Your task to perform on an android device: Add alienware area 51 to the cart on amazon, then select checkout. Image 0: 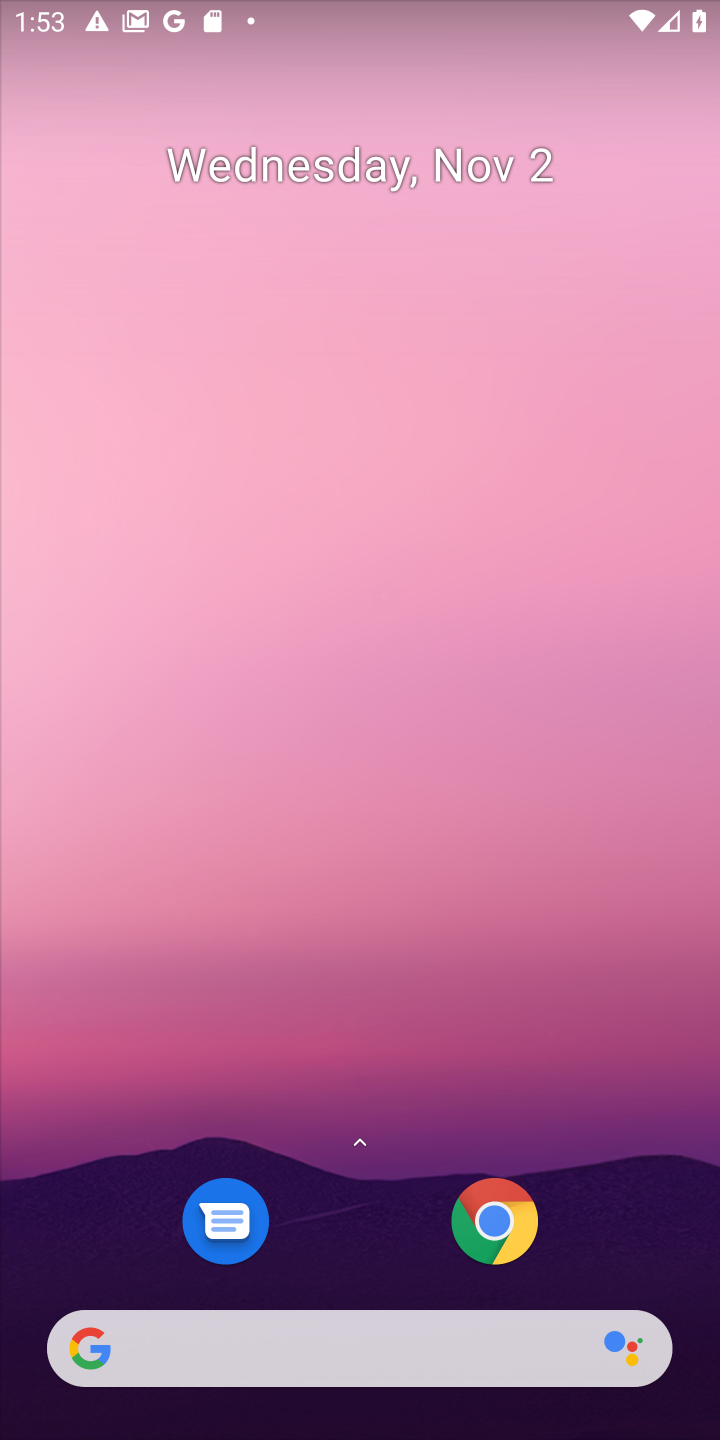
Step 0: click (293, 1321)
Your task to perform on an android device: Add alienware area 51 to the cart on amazon, then select checkout. Image 1: 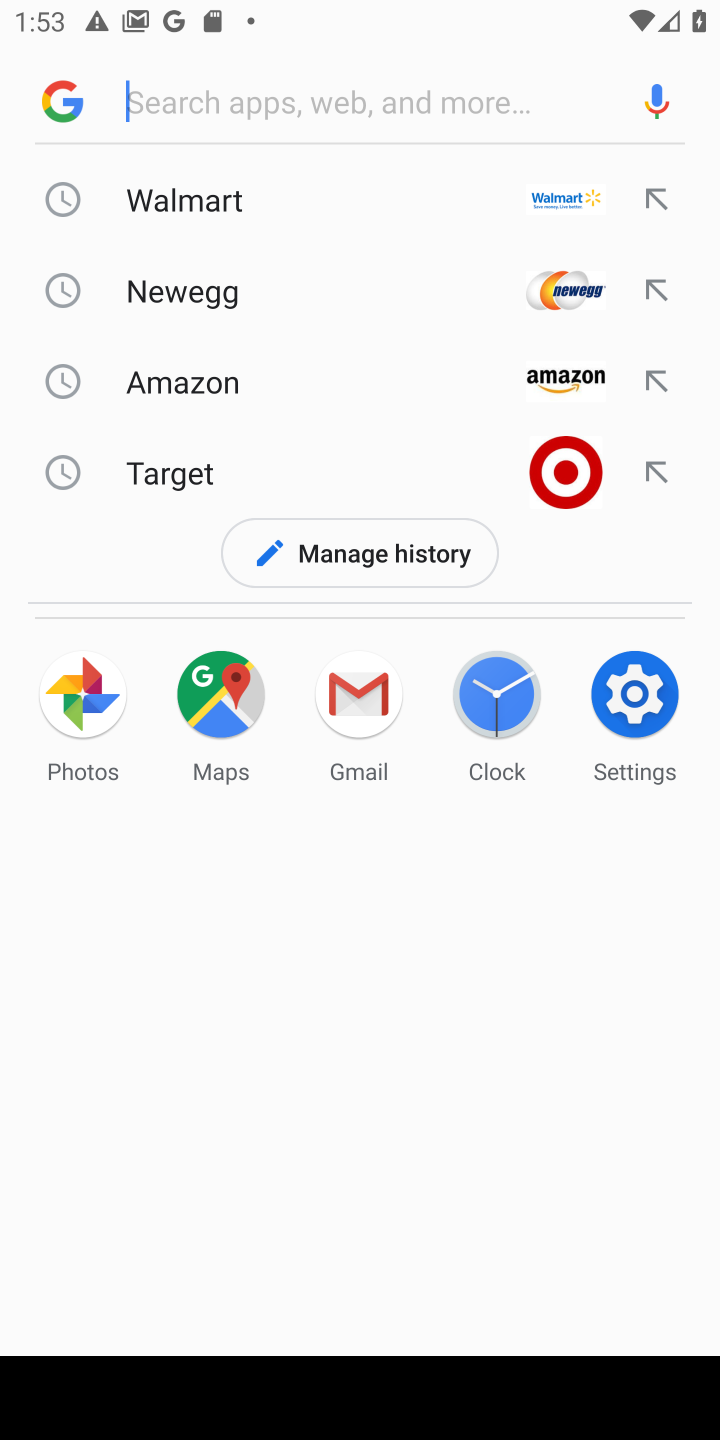
Step 1: type "amazon"
Your task to perform on an android device: Add alienware area 51 to the cart on amazon, then select checkout. Image 2: 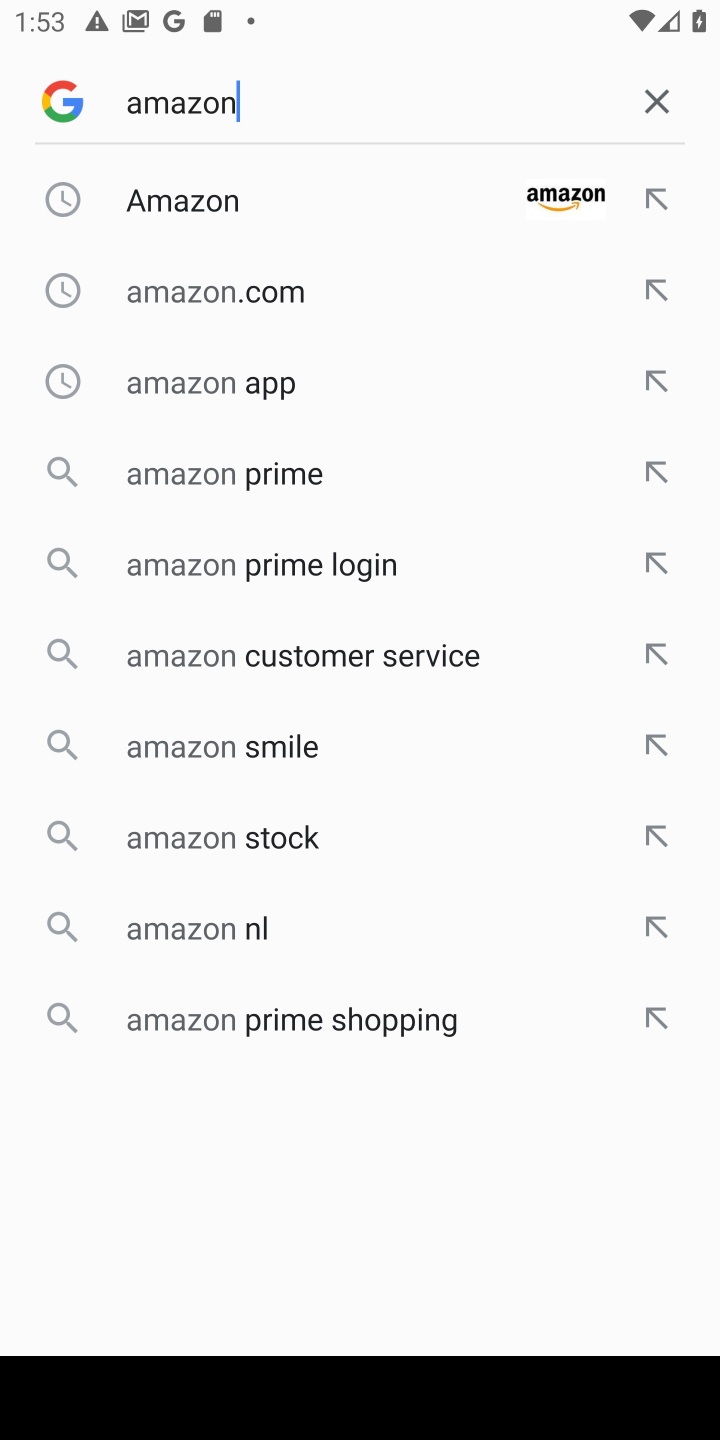
Step 2: click (348, 229)
Your task to perform on an android device: Add alienware area 51 to the cart on amazon, then select checkout. Image 3: 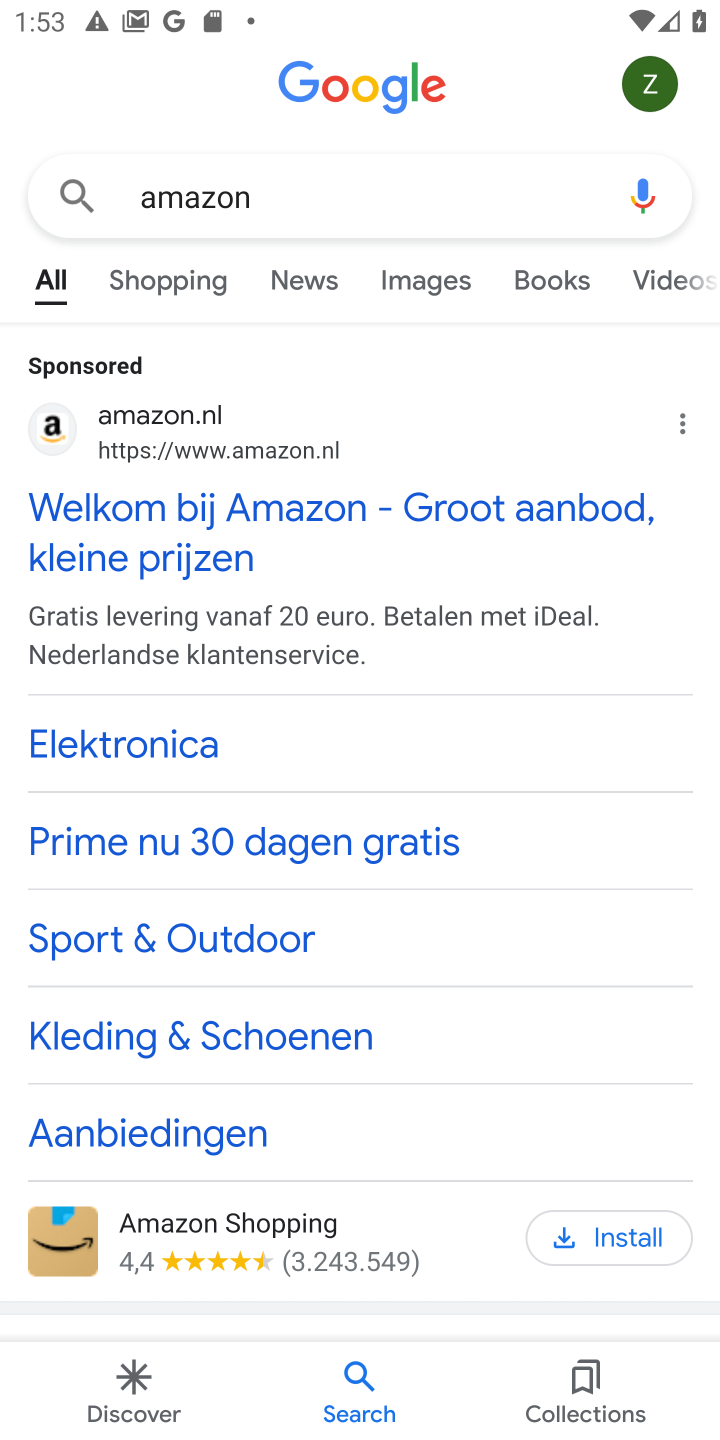
Step 3: click (278, 554)
Your task to perform on an android device: Add alienware area 51 to the cart on amazon, then select checkout. Image 4: 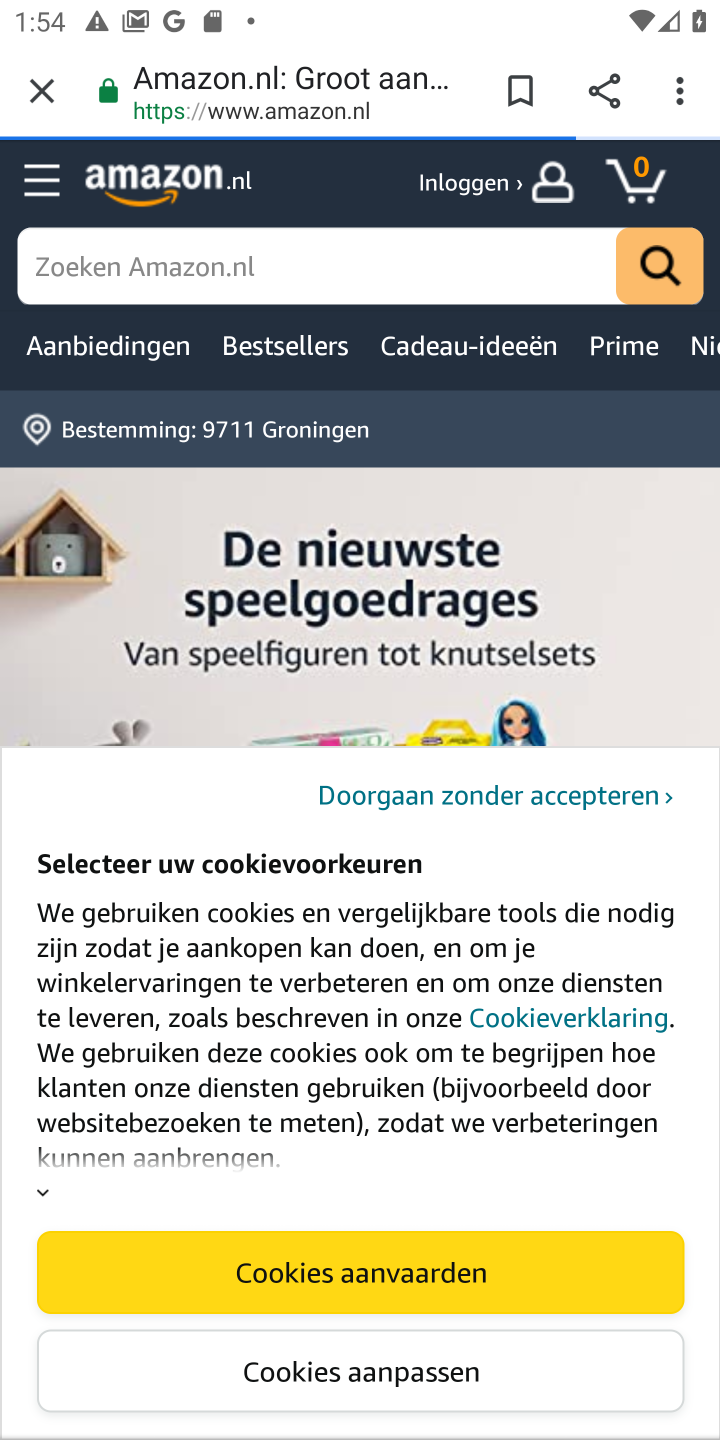
Step 4: click (428, 287)
Your task to perform on an android device: Add alienware area 51 to the cart on amazon, then select checkout. Image 5: 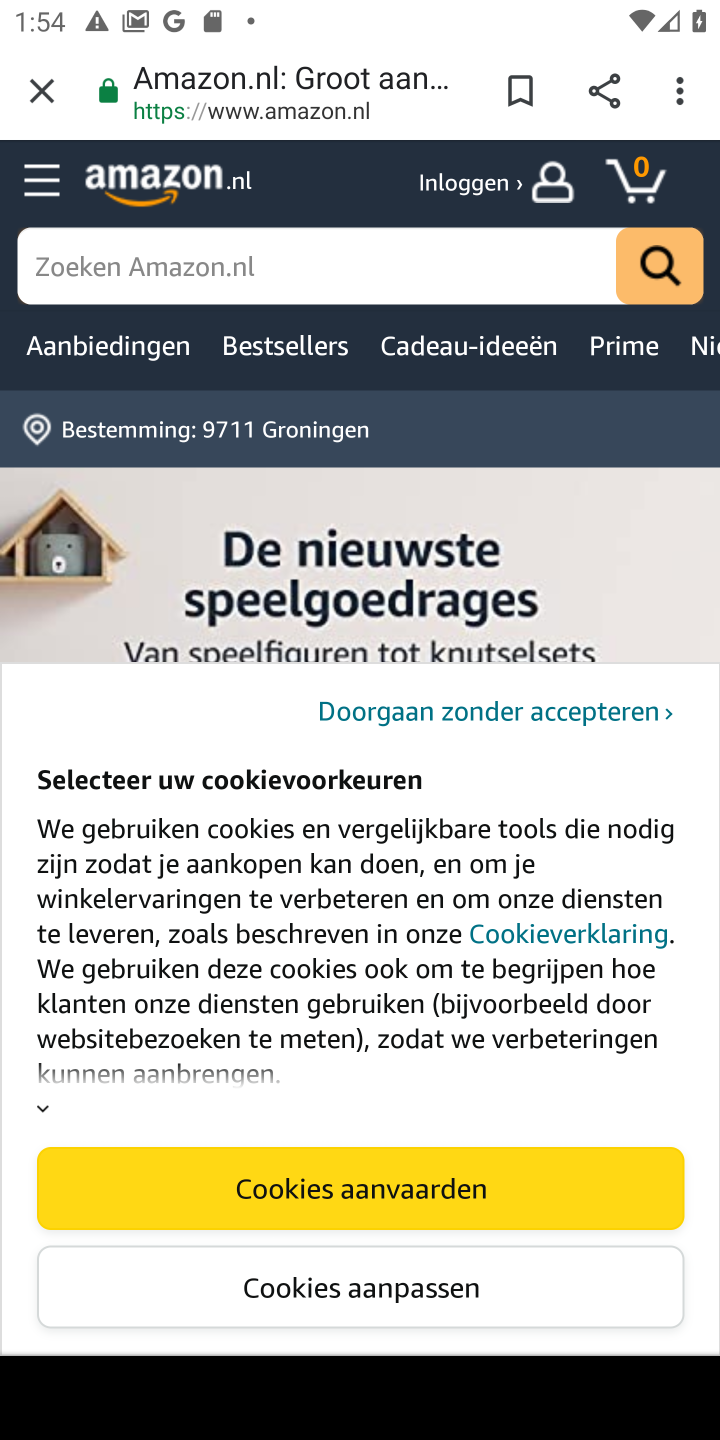
Step 5: click (343, 256)
Your task to perform on an android device: Add alienware area 51 to the cart on amazon, then select checkout. Image 6: 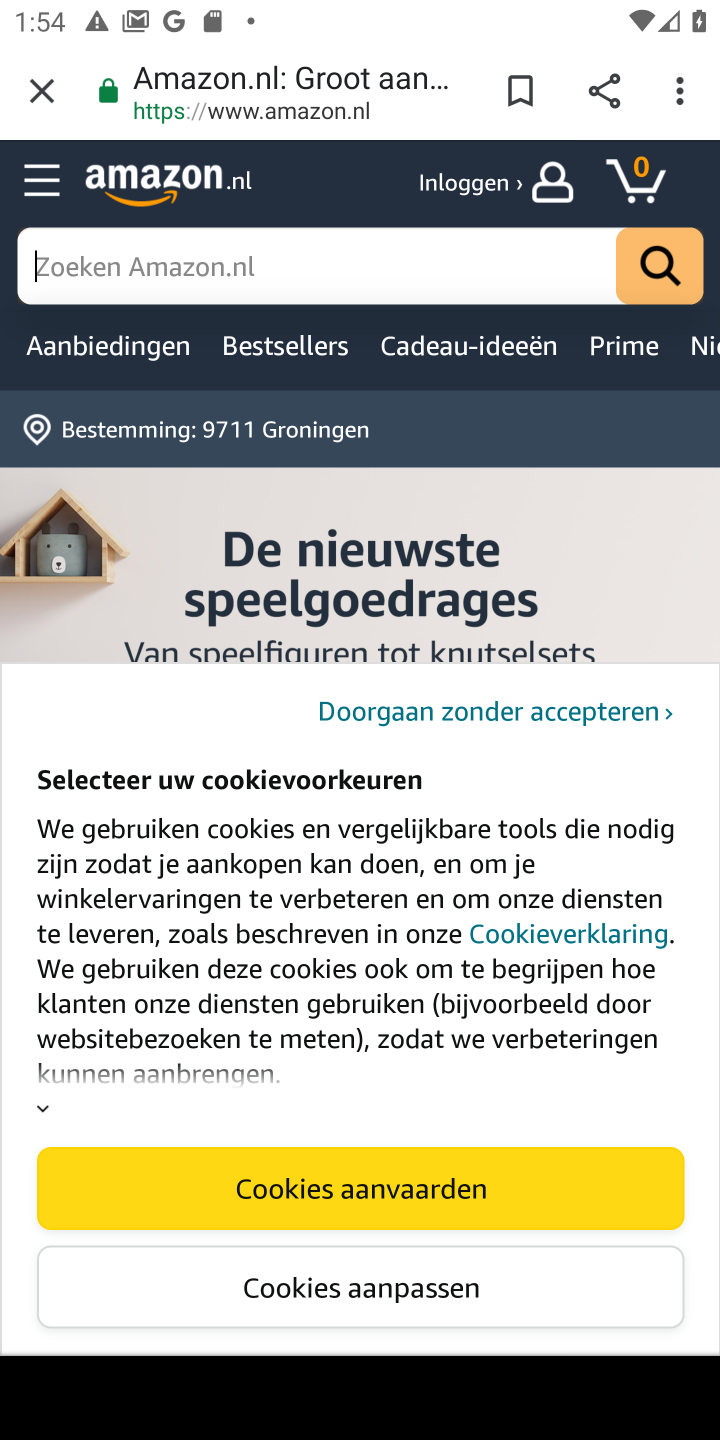
Step 6: type "aliean waer area 51"
Your task to perform on an android device: Add alienware area 51 to the cart on amazon, then select checkout. Image 7: 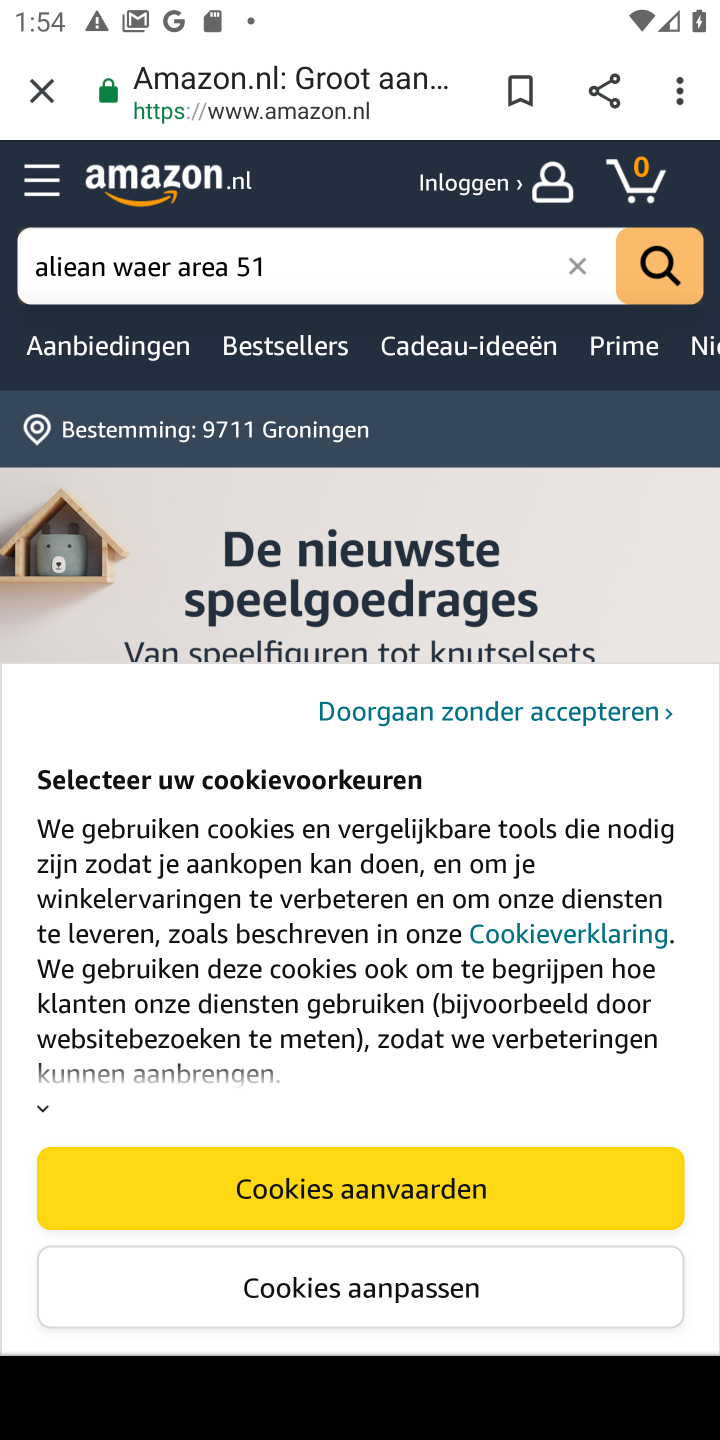
Step 7: task complete